Your task to perform on an android device: turn on improve location accuracy Image 0: 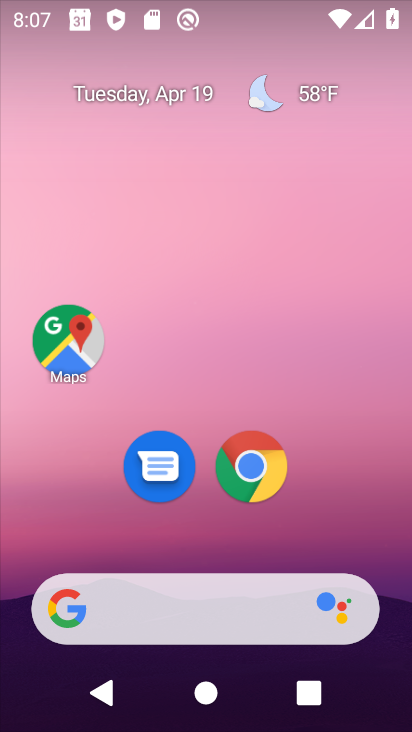
Step 0: drag from (379, 378) to (397, 81)
Your task to perform on an android device: turn on improve location accuracy Image 1: 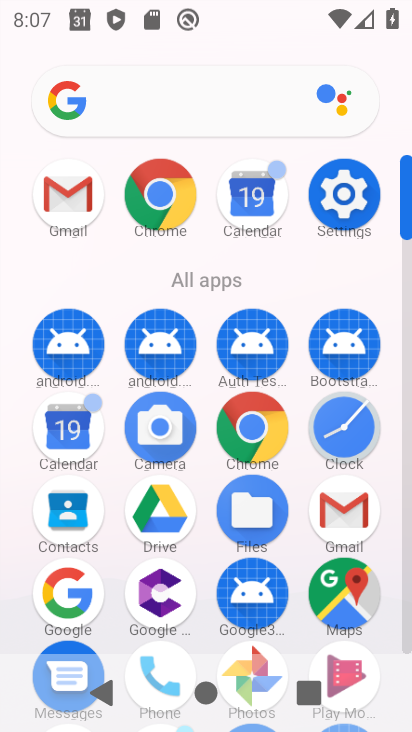
Step 1: click (350, 190)
Your task to perform on an android device: turn on improve location accuracy Image 2: 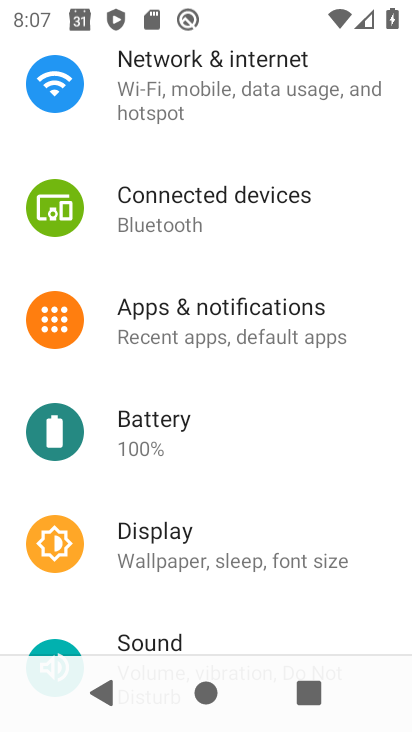
Step 2: drag from (248, 585) to (352, 132)
Your task to perform on an android device: turn on improve location accuracy Image 3: 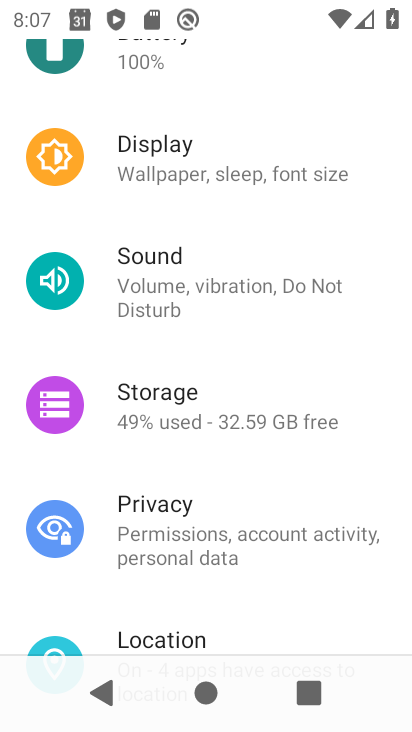
Step 3: drag from (273, 582) to (307, 208)
Your task to perform on an android device: turn on improve location accuracy Image 4: 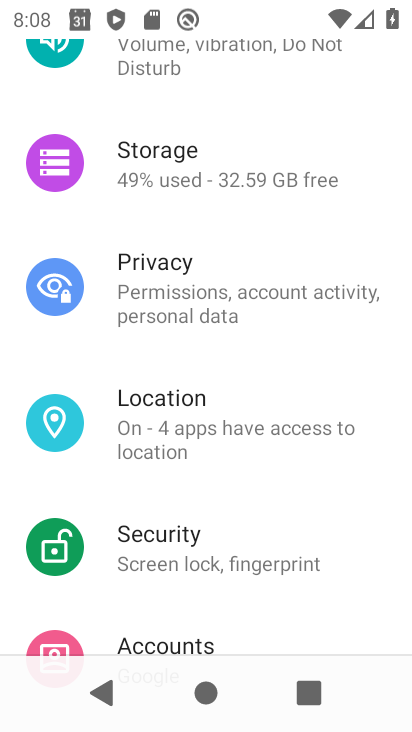
Step 4: click (183, 417)
Your task to perform on an android device: turn on improve location accuracy Image 5: 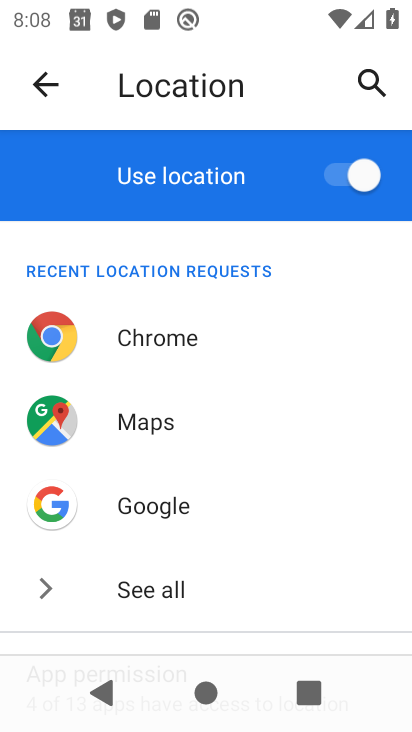
Step 5: drag from (286, 571) to (338, 266)
Your task to perform on an android device: turn on improve location accuracy Image 6: 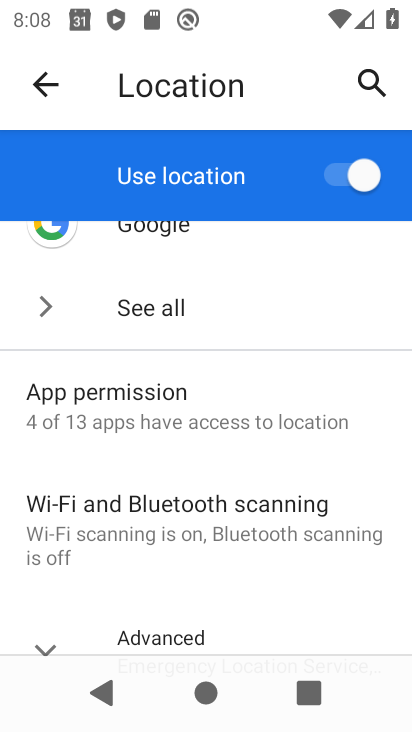
Step 6: drag from (232, 379) to (283, 162)
Your task to perform on an android device: turn on improve location accuracy Image 7: 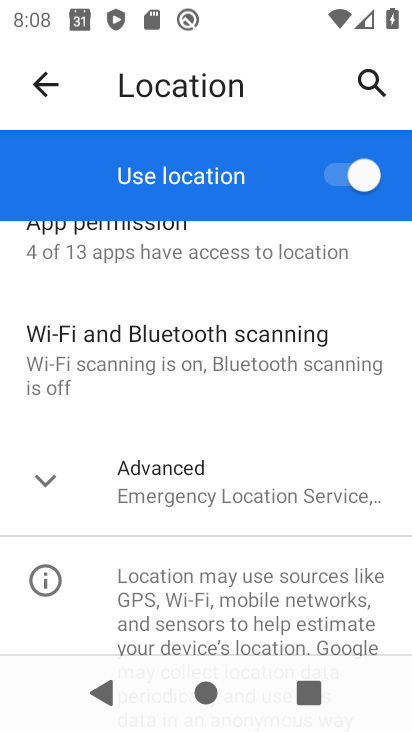
Step 7: click (148, 480)
Your task to perform on an android device: turn on improve location accuracy Image 8: 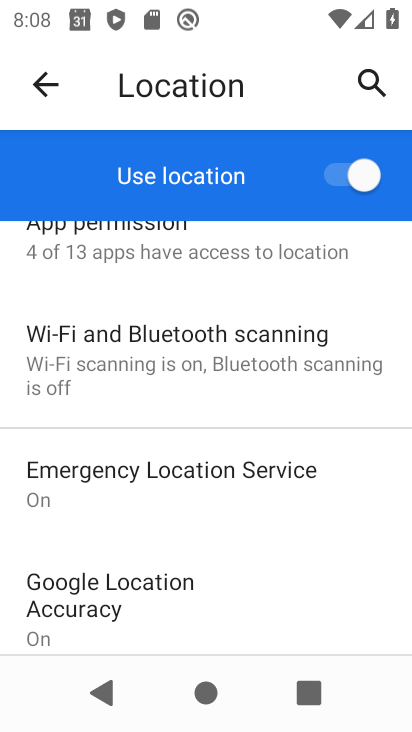
Step 8: drag from (174, 568) to (252, 307)
Your task to perform on an android device: turn on improve location accuracy Image 9: 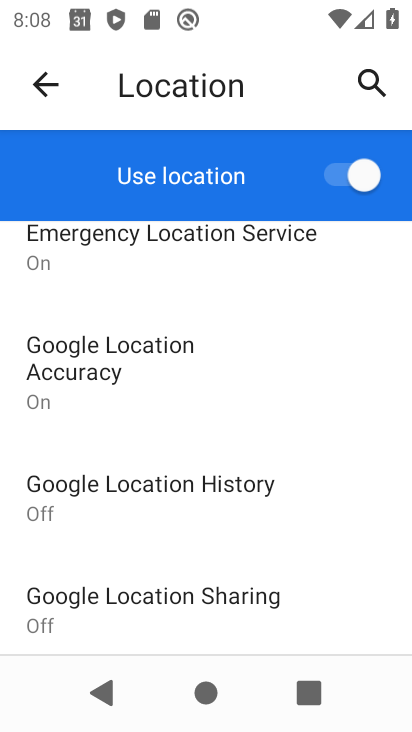
Step 9: click (149, 353)
Your task to perform on an android device: turn on improve location accuracy Image 10: 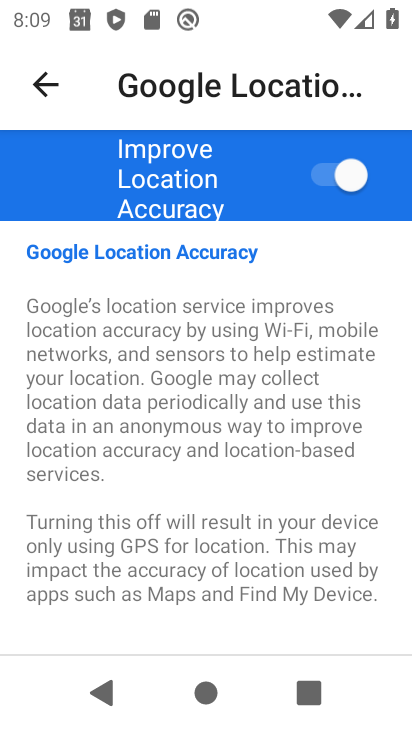
Step 10: task complete